Your task to perform on an android device: toggle javascript in the chrome app Image 0: 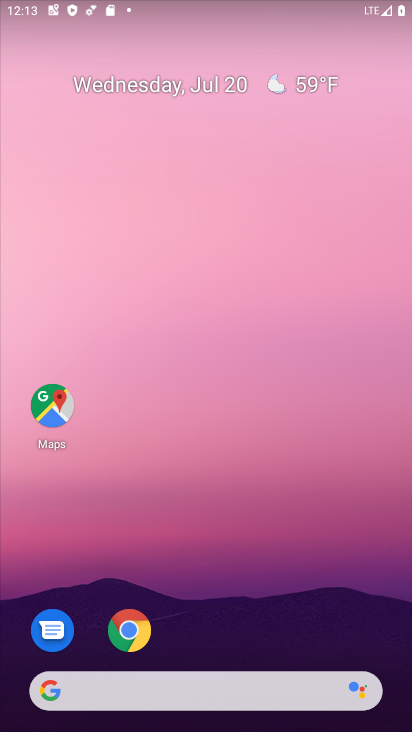
Step 0: drag from (248, 581) to (287, 270)
Your task to perform on an android device: toggle javascript in the chrome app Image 1: 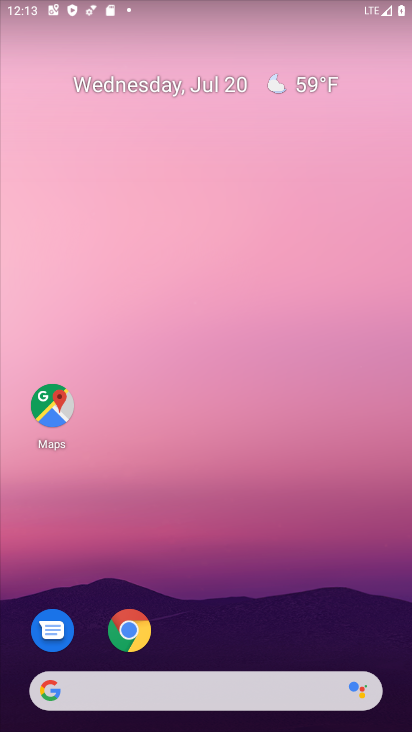
Step 1: drag from (242, 674) to (216, 111)
Your task to perform on an android device: toggle javascript in the chrome app Image 2: 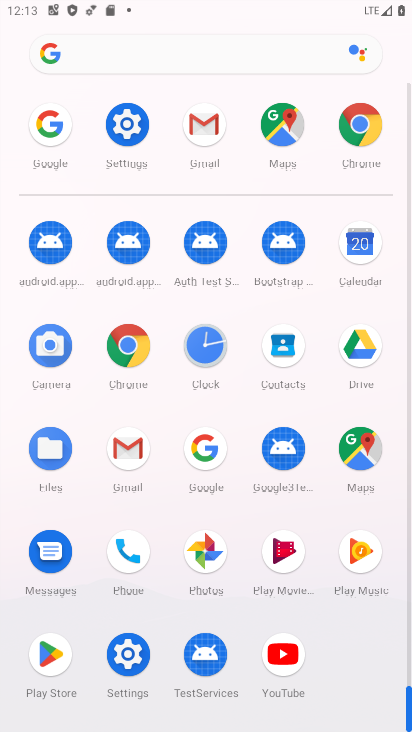
Step 2: click (130, 354)
Your task to perform on an android device: toggle javascript in the chrome app Image 3: 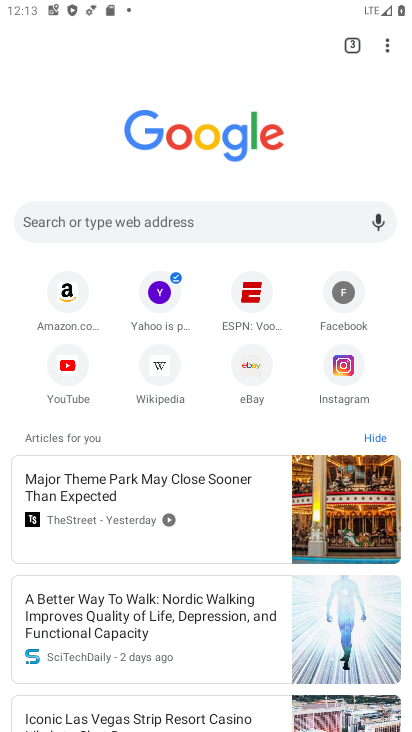
Step 3: click (386, 48)
Your task to perform on an android device: toggle javascript in the chrome app Image 4: 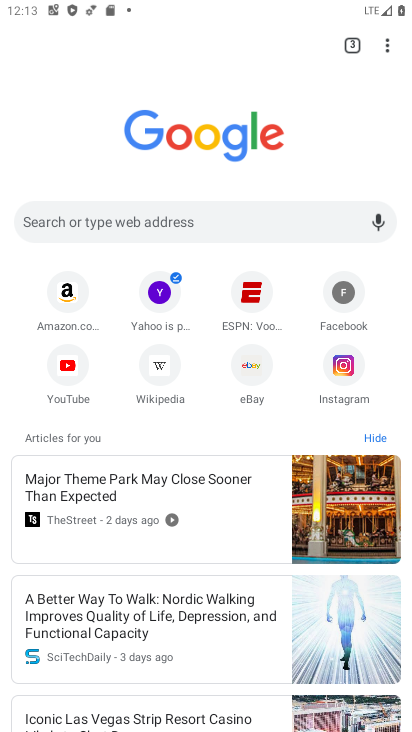
Step 4: click (392, 58)
Your task to perform on an android device: toggle javascript in the chrome app Image 5: 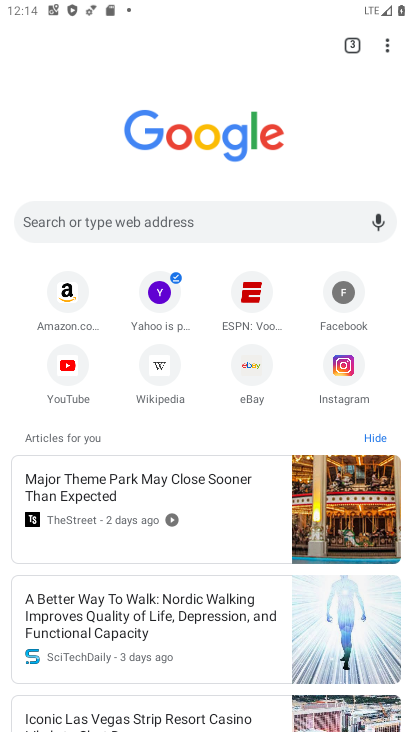
Step 5: click (387, 54)
Your task to perform on an android device: toggle javascript in the chrome app Image 6: 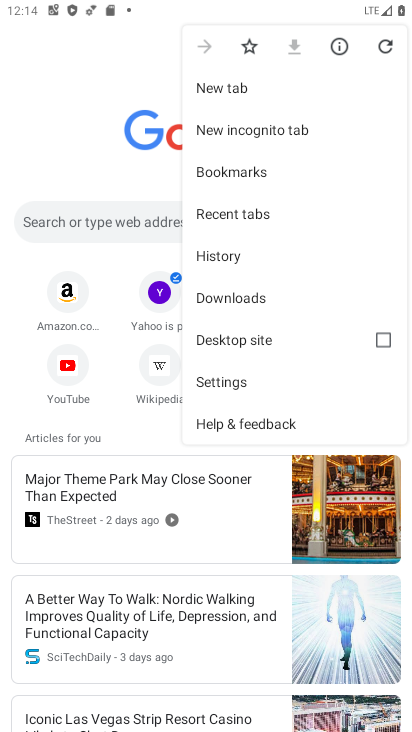
Step 6: click (239, 384)
Your task to perform on an android device: toggle javascript in the chrome app Image 7: 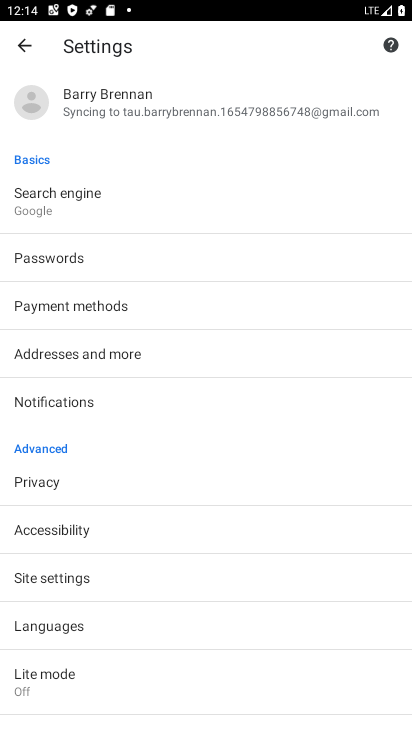
Step 7: drag from (141, 540) to (174, 365)
Your task to perform on an android device: toggle javascript in the chrome app Image 8: 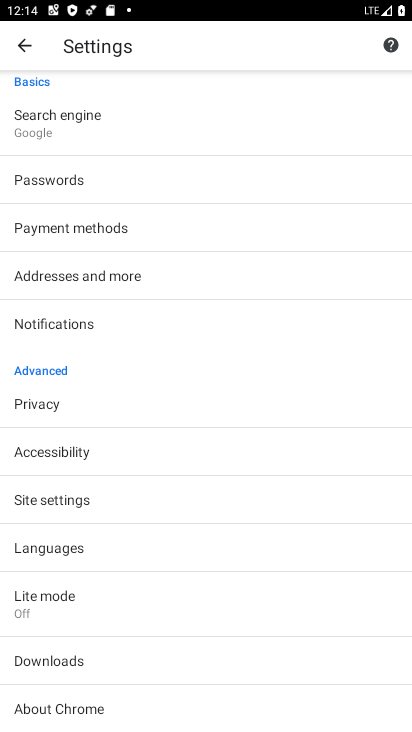
Step 8: click (73, 502)
Your task to perform on an android device: toggle javascript in the chrome app Image 9: 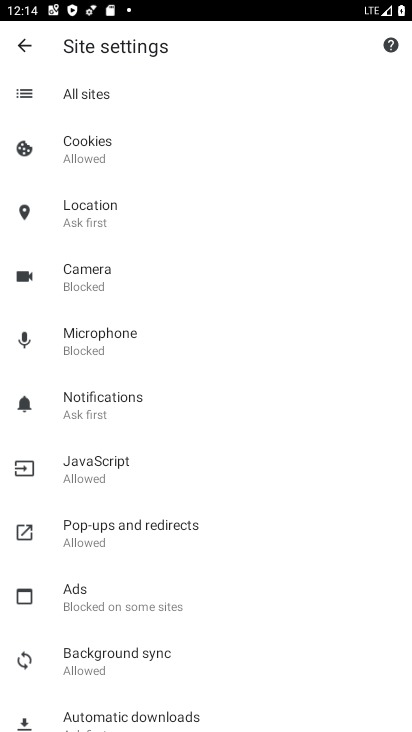
Step 9: click (132, 473)
Your task to perform on an android device: toggle javascript in the chrome app Image 10: 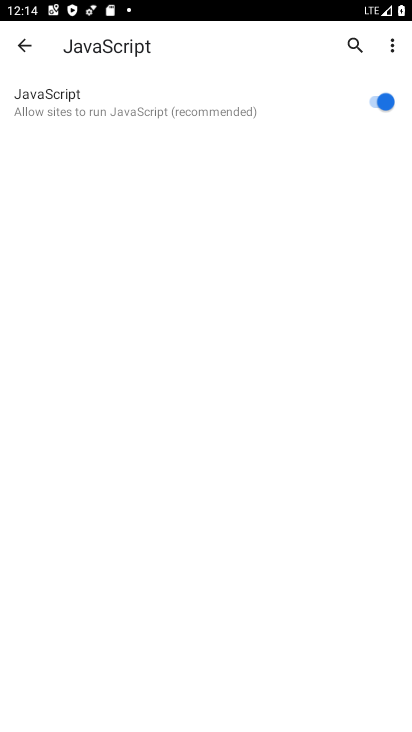
Step 10: click (362, 106)
Your task to perform on an android device: toggle javascript in the chrome app Image 11: 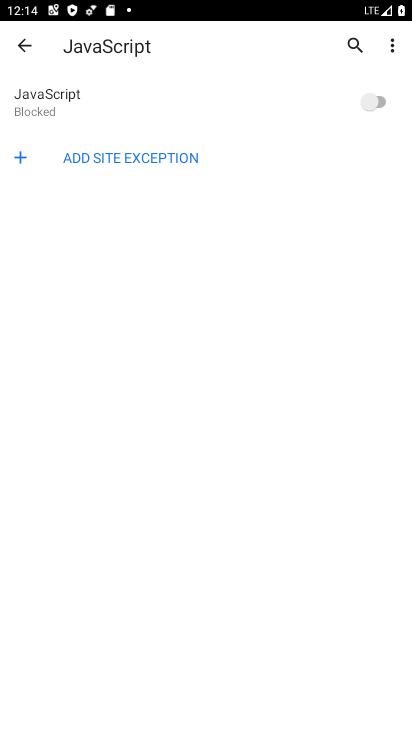
Step 11: task complete